Your task to perform on an android device: Open settings on Google Maps Image 0: 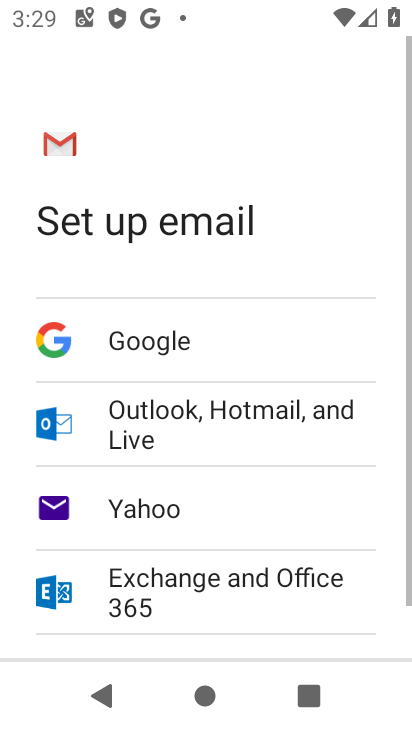
Step 0: press home button
Your task to perform on an android device: Open settings on Google Maps Image 1: 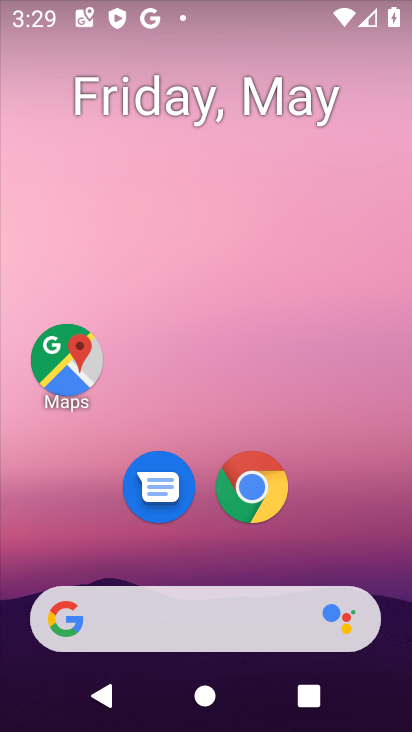
Step 1: drag from (396, 641) to (282, 63)
Your task to perform on an android device: Open settings on Google Maps Image 2: 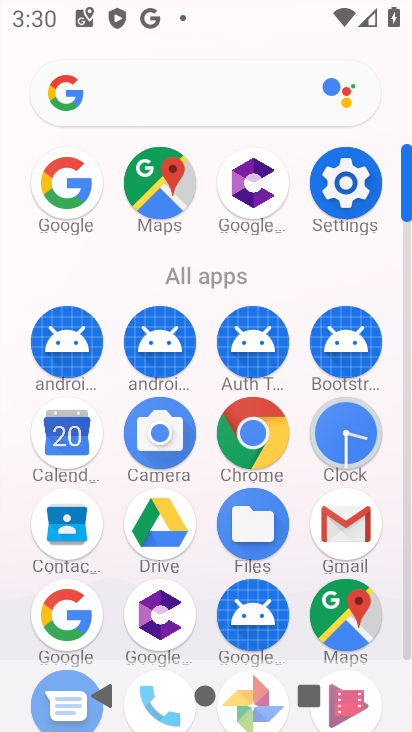
Step 2: click (333, 608)
Your task to perform on an android device: Open settings on Google Maps Image 3: 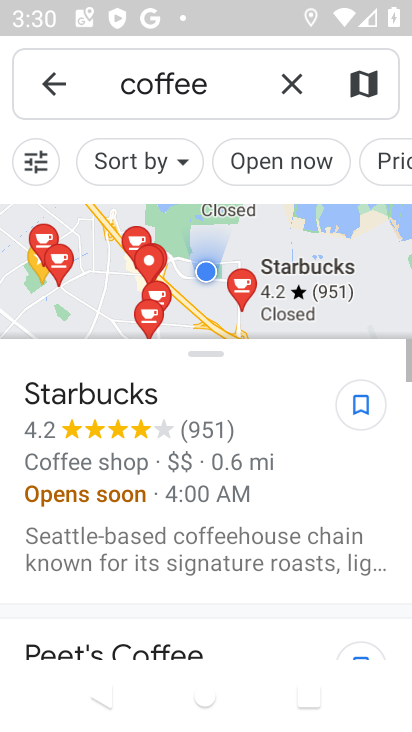
Step 3: click (55, 73)
Your task to perform on an android device: Open settings on Google Maps Image 4: 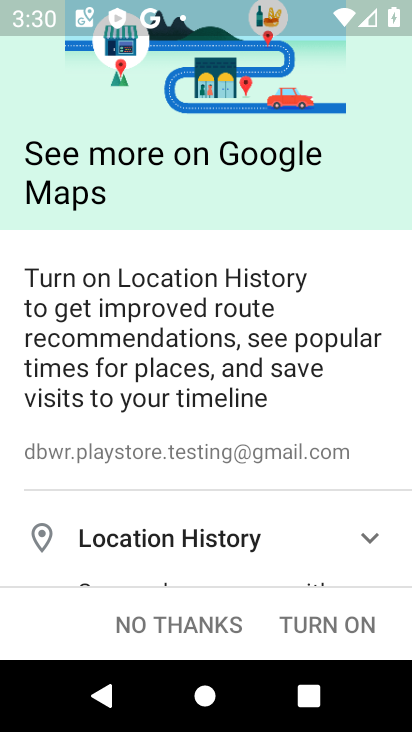
Step 4: click (196, 617)
Your task to perform on an android device: Open settings on Google Maps Image 5: 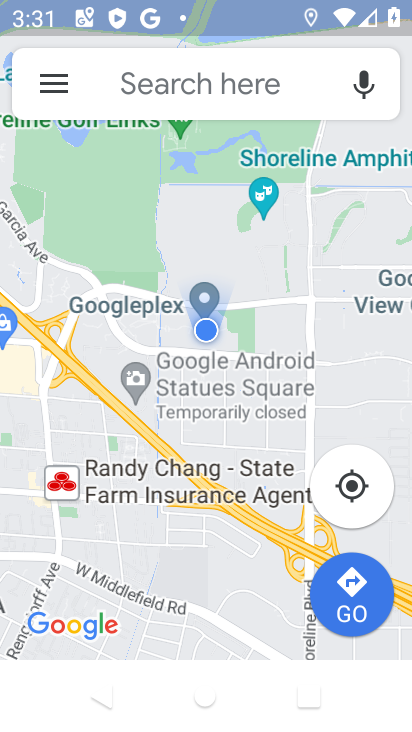
Step 5: click (46, 96)
Your task to perform on an android device: Open settings on Google Maps Image 6: 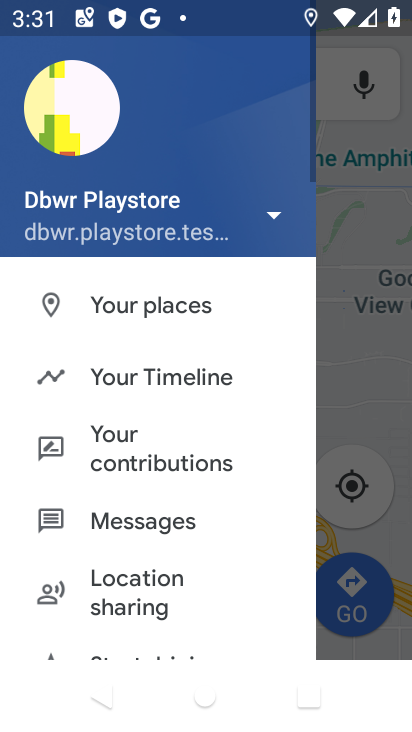
Step 6: drag from (112, 658) to (237, 178)
Your task to perform on an android device: Open settings on Google Maps Image 7: 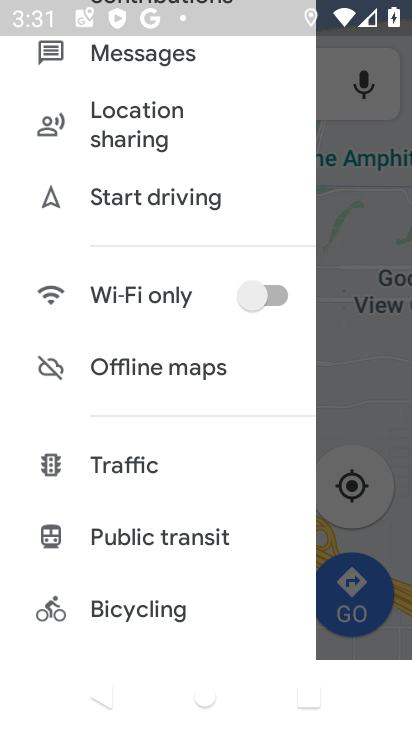
Step 7: drag from (165, 547) to (185, 92)
Your task to perform on an android device: Open settings on Google Maps Image 8: 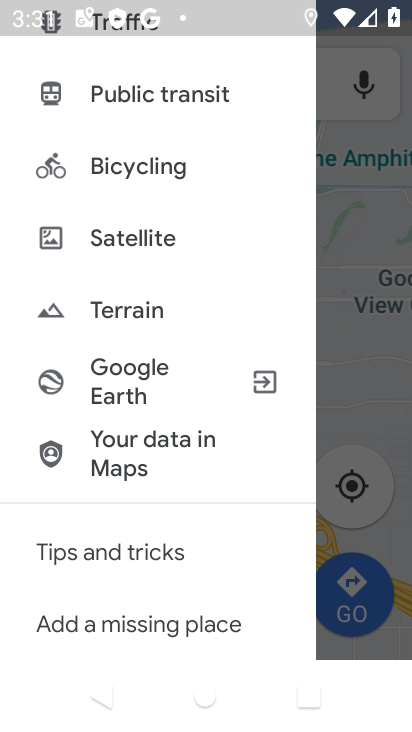
Step 8: drag from (110, 572) to (153, 107)
Your task to perform on an android device: Open settings on Google Maps Image 9: 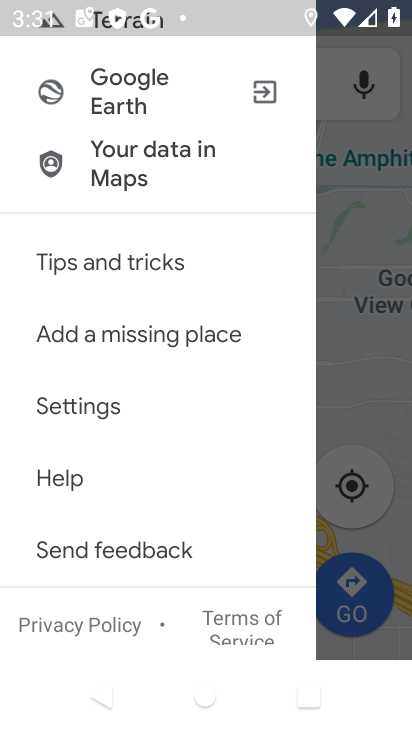
Step 9: click (60, 394)
Your task to perform on an android device: Open settings on Google Maps Image 10: 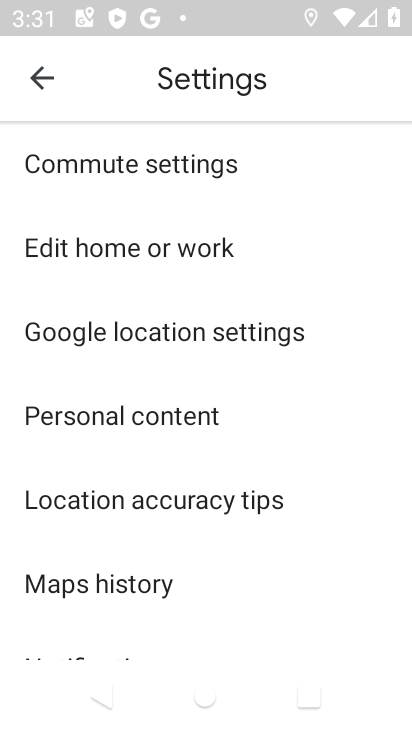
Step 10: task complete